Your task to perform on an android device: turn on improve location accuracy Image 0: 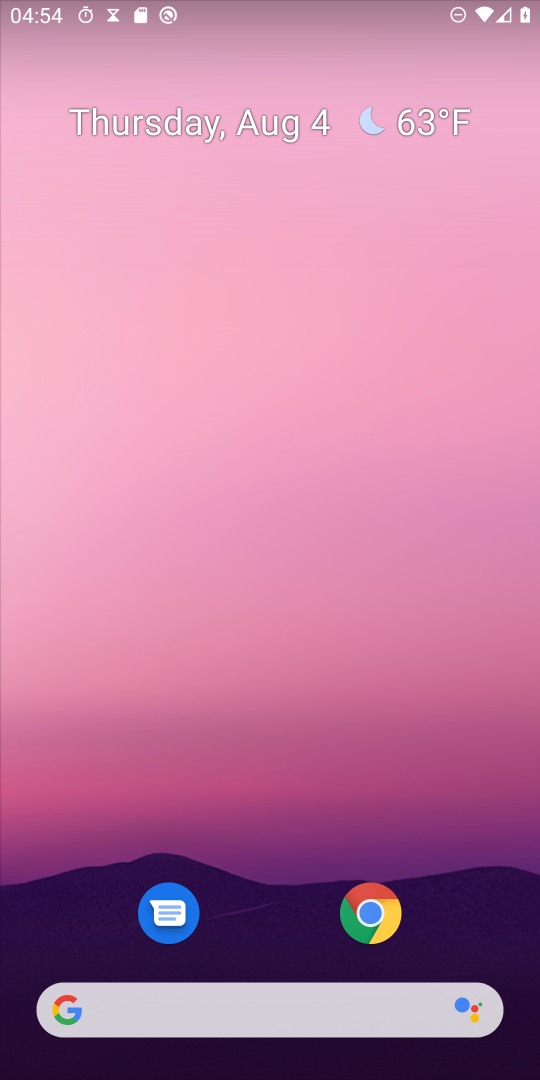
Step 0: drag from (295, 939) to (342, 171)
Your task to perform on an android device: turn on improve location accuracy Image 1: 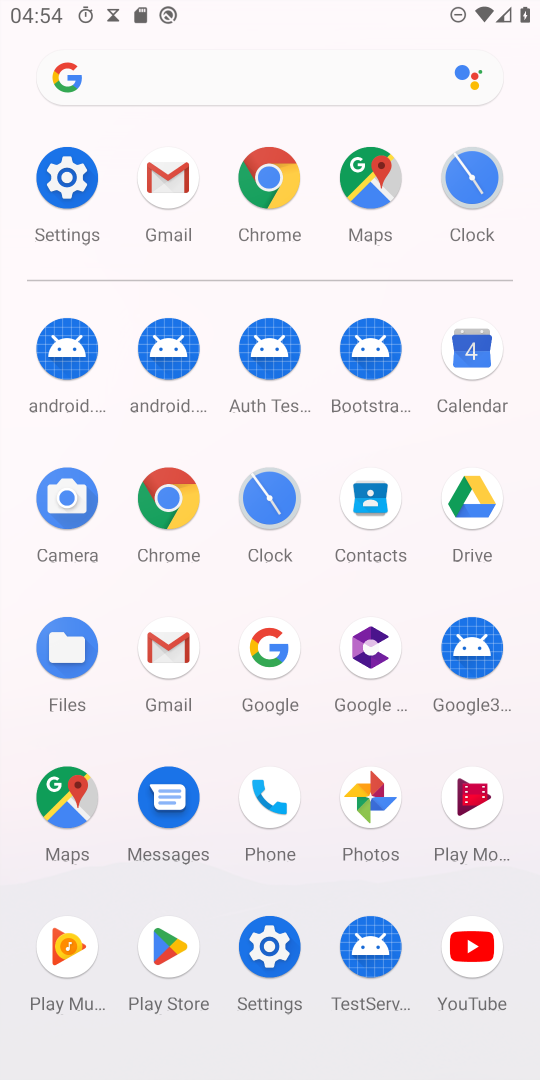
Step 1: click (288, 943)
Your task to perform on an android device: turn on improve location accuracy Image 2: 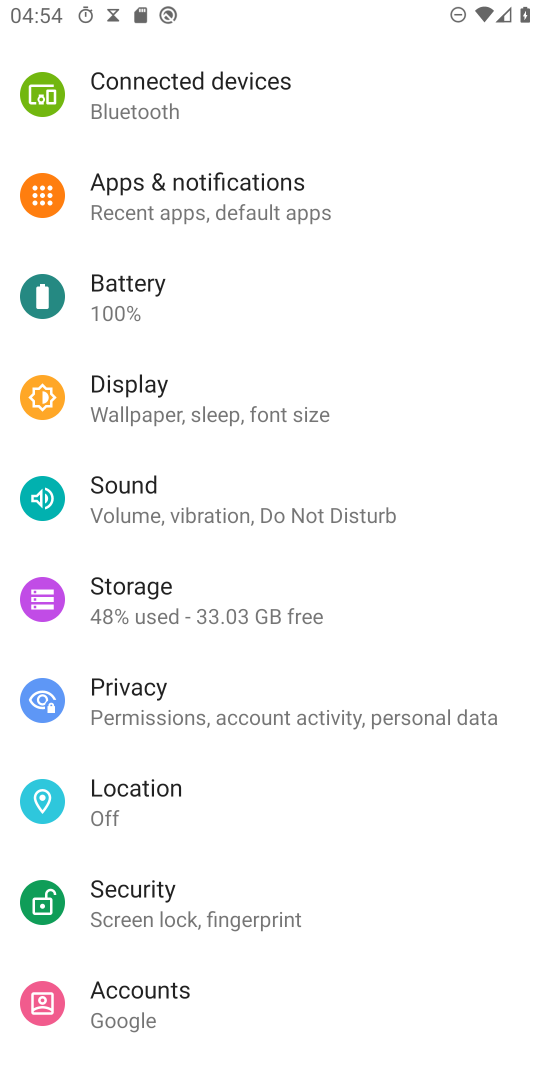
Step 2: click (202, 810)
Your task to perform on an android device: turn on improve location accuracy Image 3: 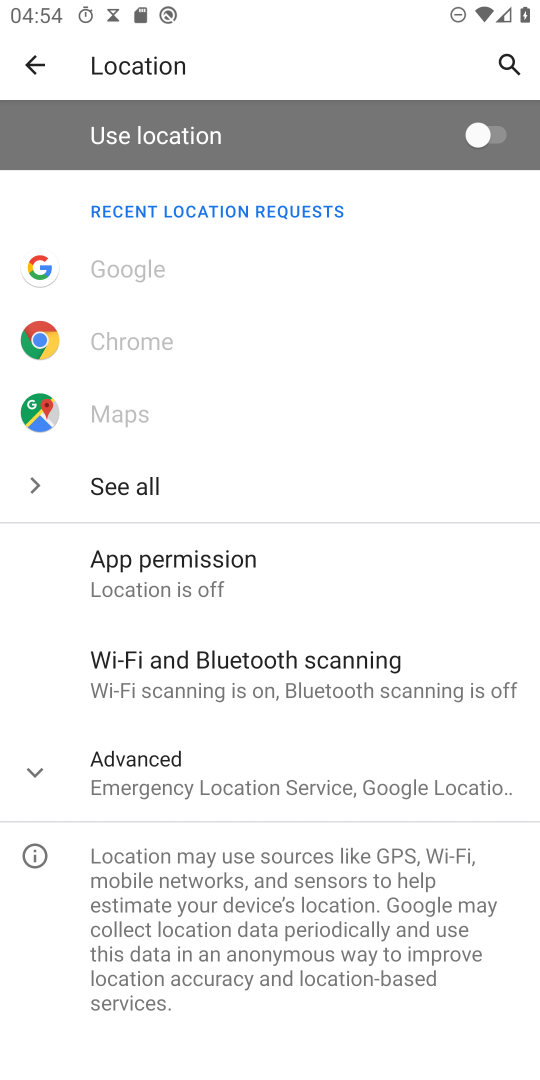
Step 3: click (368, 768)
Your task to perform on an android device: turn on improve location accuracy Image 4: 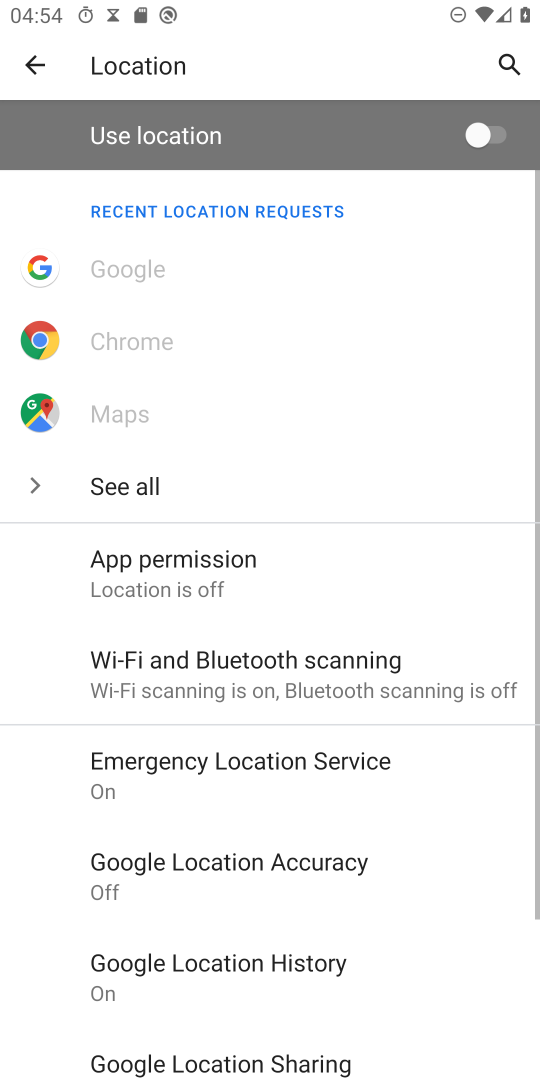
Step 4: click (332, 866)
Your task to perform on an android device: turn on improve location accuracy Image 5: 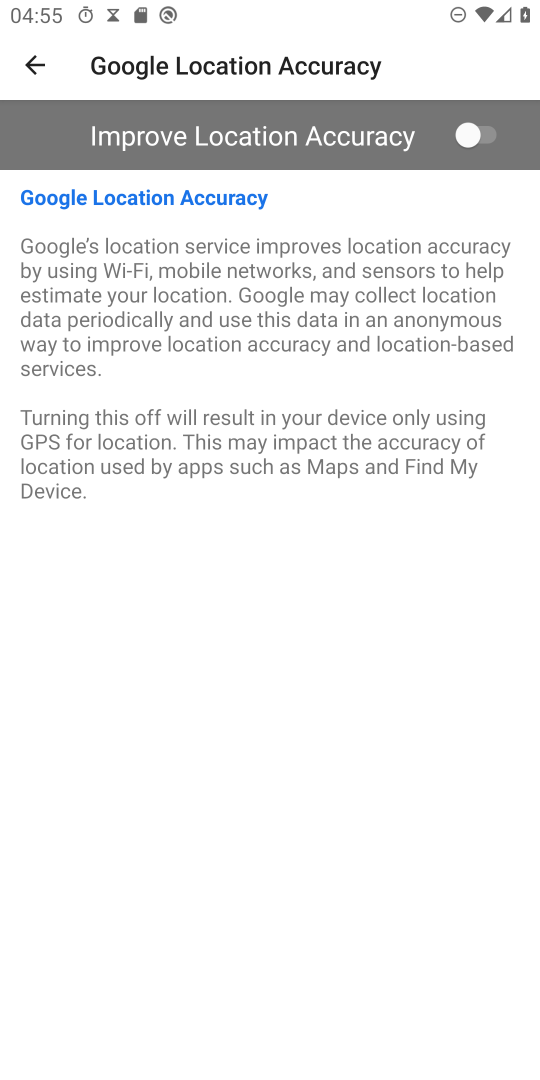
Step 5: click (492, 130)
Your task to perform on an android device: turn on improve location accuracy Image 6: 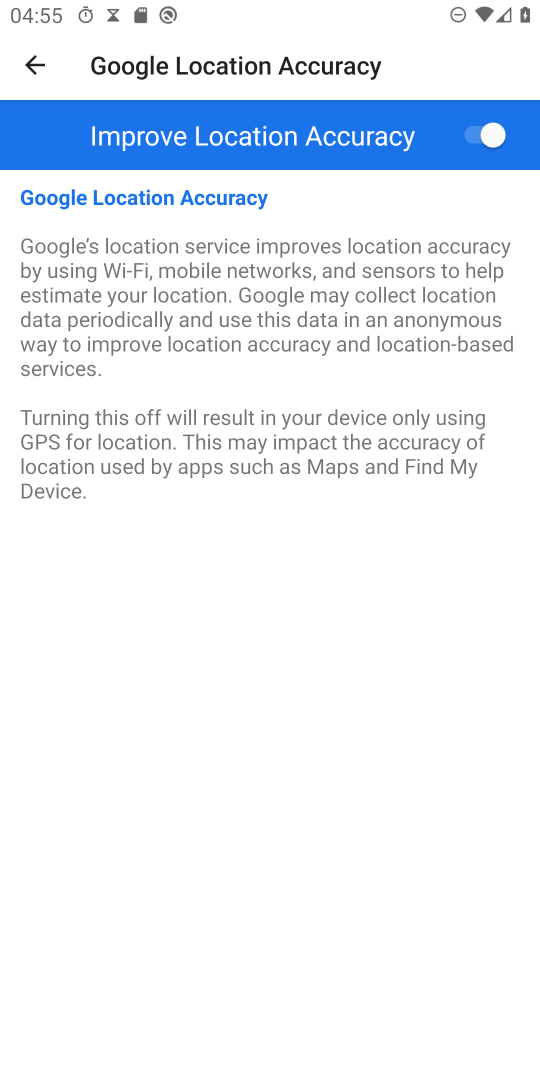
Step 6: task complete